Your task to perform on an android device: Open the calendar app, open the side menu, and click the "Day" option Image 0: 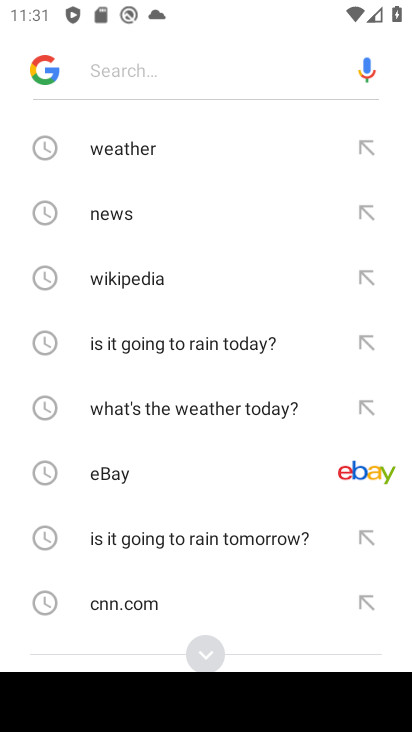
Step 0: press home button
Your task to perform on an android device: Open the calendar app, open the side menu, and click the "Day" option Image 1: 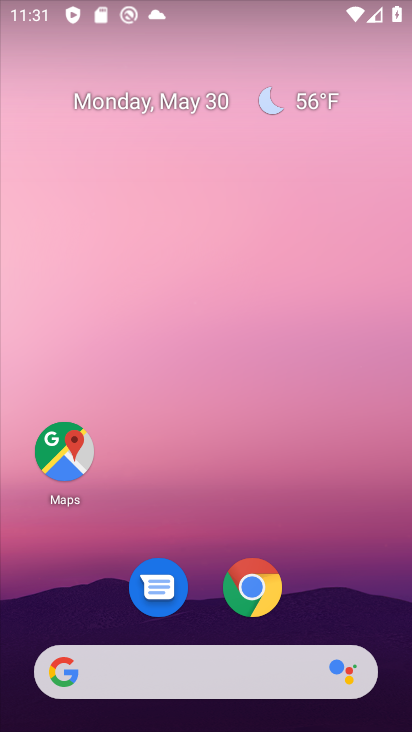
Step 1: drag from (370, 609) to (282, 107)
Your task to perform on an android device: Open the calendar app, open the side menu, and click the "Day" option Image 2: 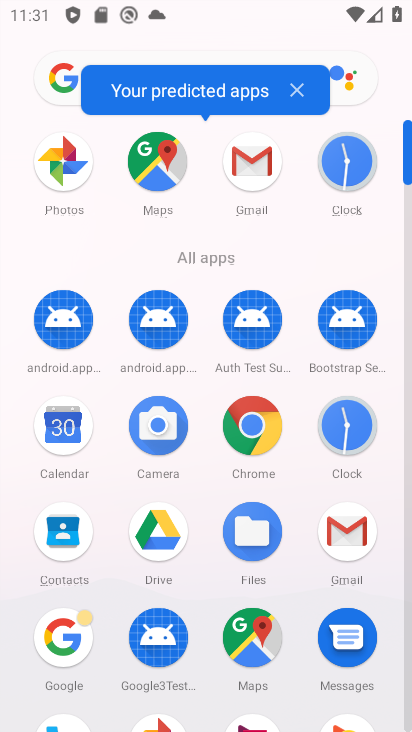
Step 2: click (73, 435)
Your task to perform on an android device: Open the calendar app, open the side menu, and click the "Day" option Image 3: 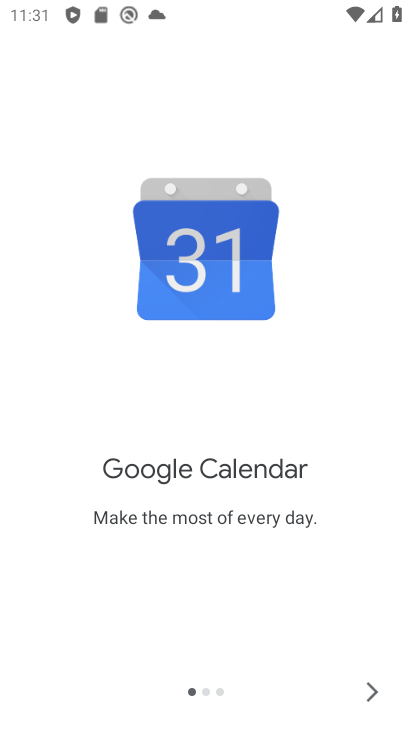
Step 3: click (376, 695)
Your task to perform on an android device: Open the calendar app, open the side menu, and click the "Day" option Image 4: 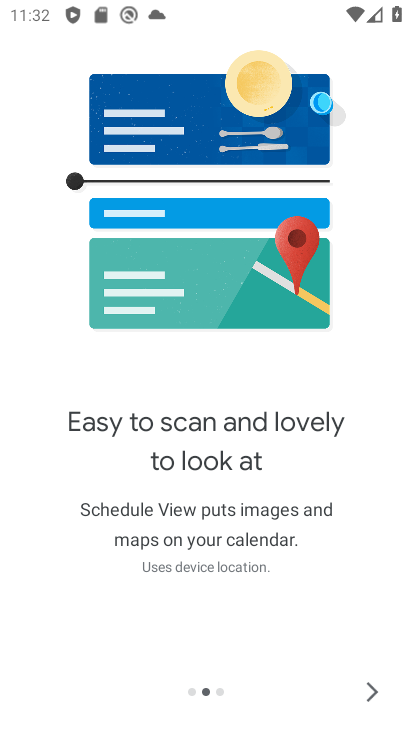
Step 4: click (372, 698)
Your task to perform on an android device: Open the calendar app, open the side menu, and click the "Day" option Image 5: 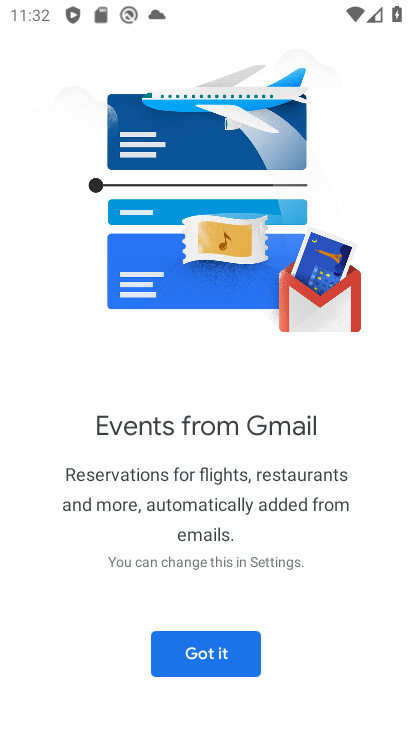
Step 5: click (239, 656)
Your task to perform on an android device: Open the calendar app, open the side menu, and click the "Day" option Image 6: 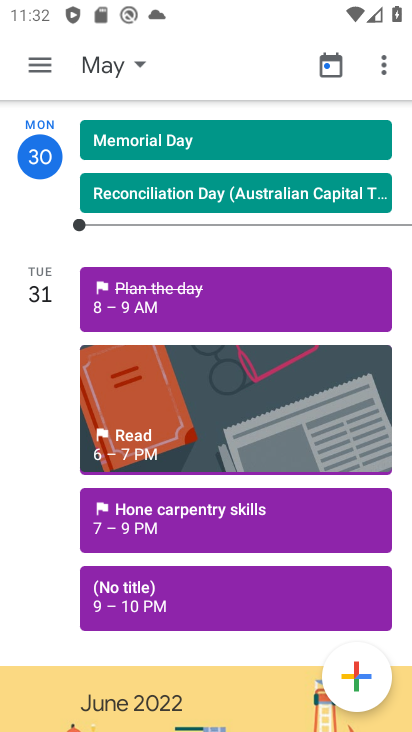
Step 6: click (46, 58)
Your task to perform on an android device: Open the calendar app, open the side menu, and click the "Day" option Image 7: 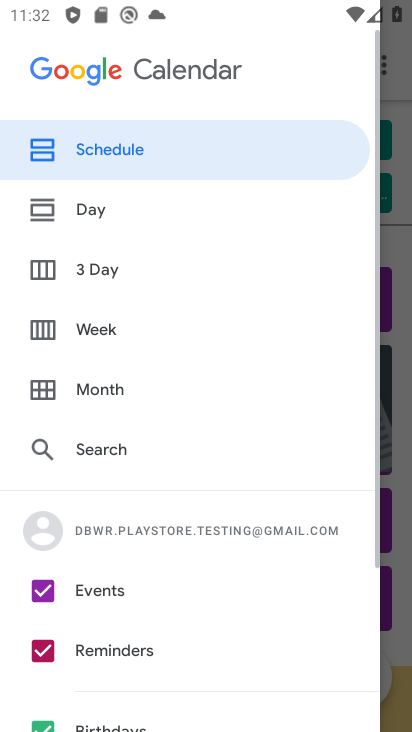
Step 7: click (99, 208)
Your task to perform on an android device: Open the calendar app, open the side menu, and click the "Day" option Image 8: 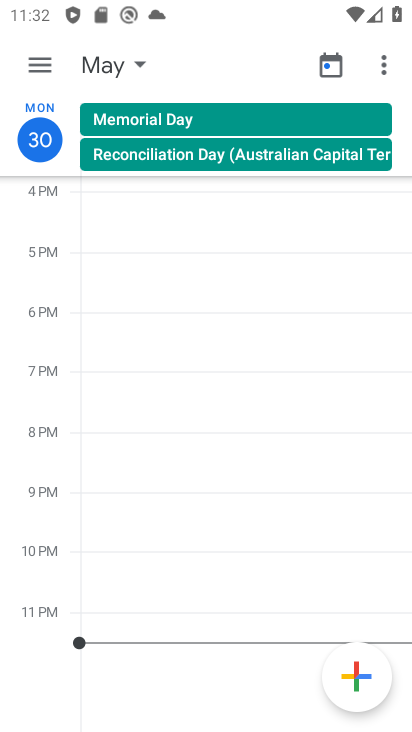
Step 8: task complete